Your task to perform on an android device: open chrome and create a bookmark for the current page Image 0: 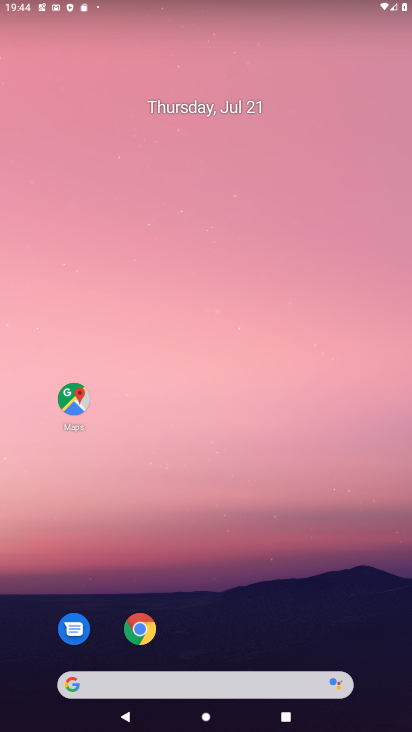
Step 0: click (139, 633)
Your task to perform on an android device: open chrome and create a bookmark for the current page Image 1: 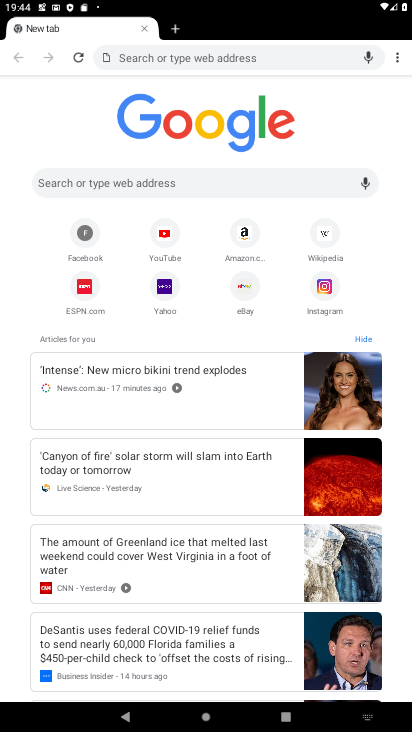
Step 1: click (397, 56)
Your task to perform on an android device: open chrome and create a bookmark for the current page Image 2: 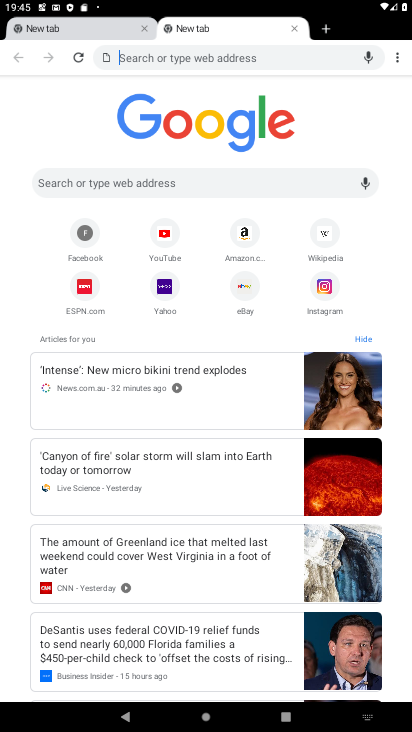
Step 2: click (305, 23)
Your task to perform on an android device: open chrome and create a bookmark for the current page Image 3: 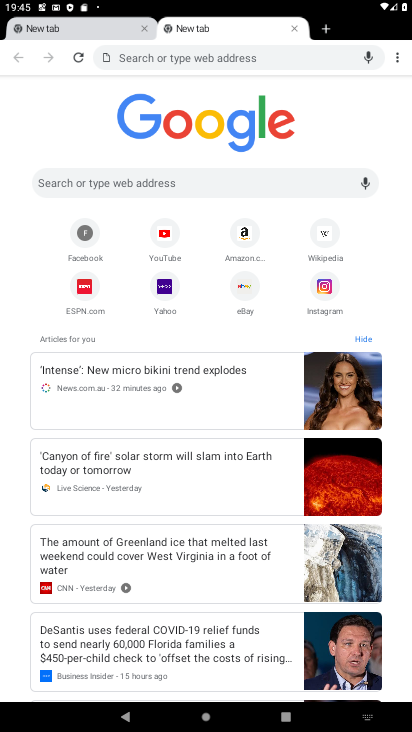
Step 3: click (294, 30)
Your task to perform on an android device: open chrome and create a bookmark for the current page Image 4: 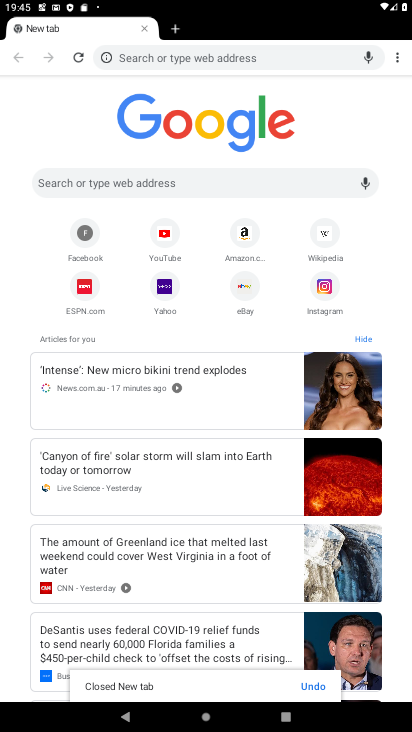
Step 4: click (399, 62)
Your task to perform on an android device: open chrome and create a bookmark for the current page Image 5: 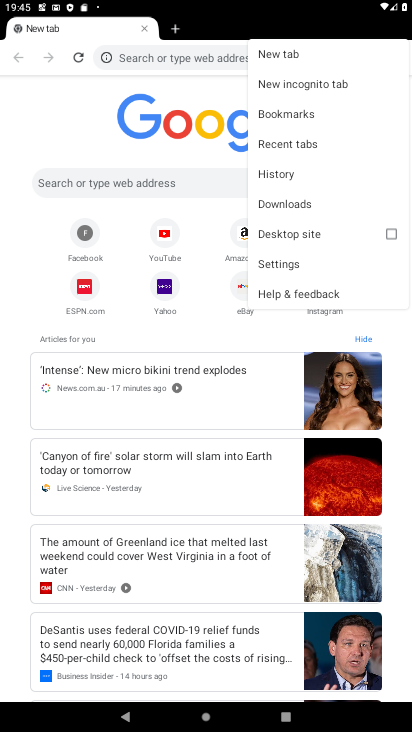
Step 5: click (63, 115)
Your task to perform on an android device: open chrome and create a bookmark for the current page Image 6: 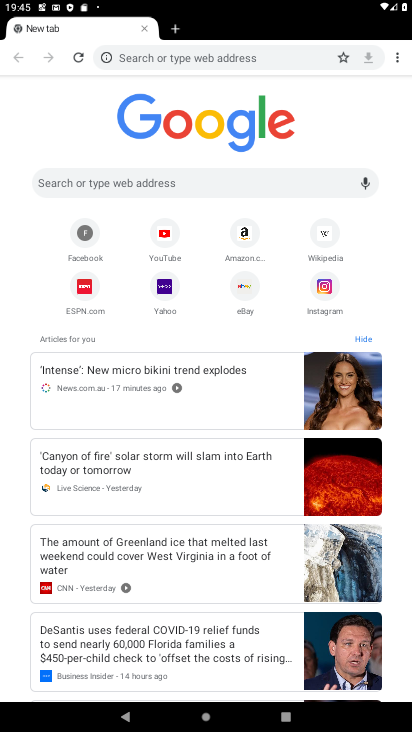
Step 6: click (344, 55)
Your task to perform on an android device: open chrome and create a bookmark for the current page Image 7: 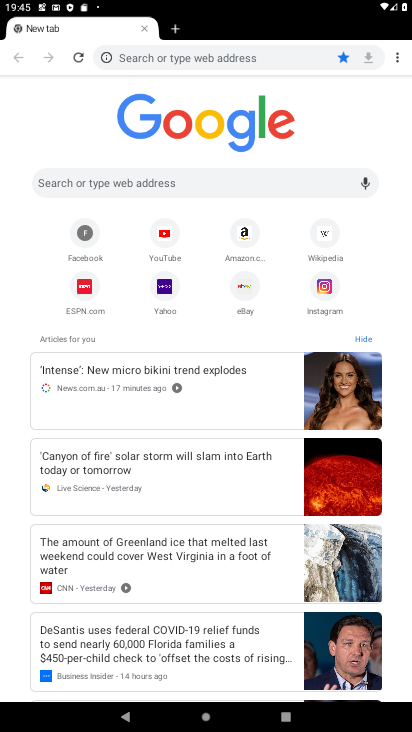
Step 7: task complete